Your task to perform on an android device: empty trash in google photos Image 0: 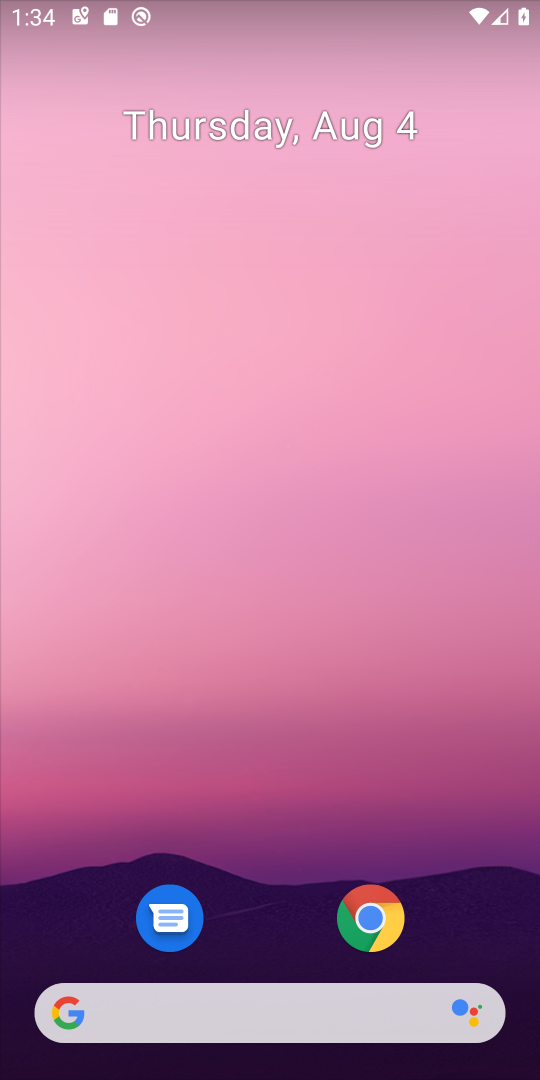
Step 0: drag from (270, 896) to (300, 383)
Your task to perform on an android device: empty trash in google photos Image 1: 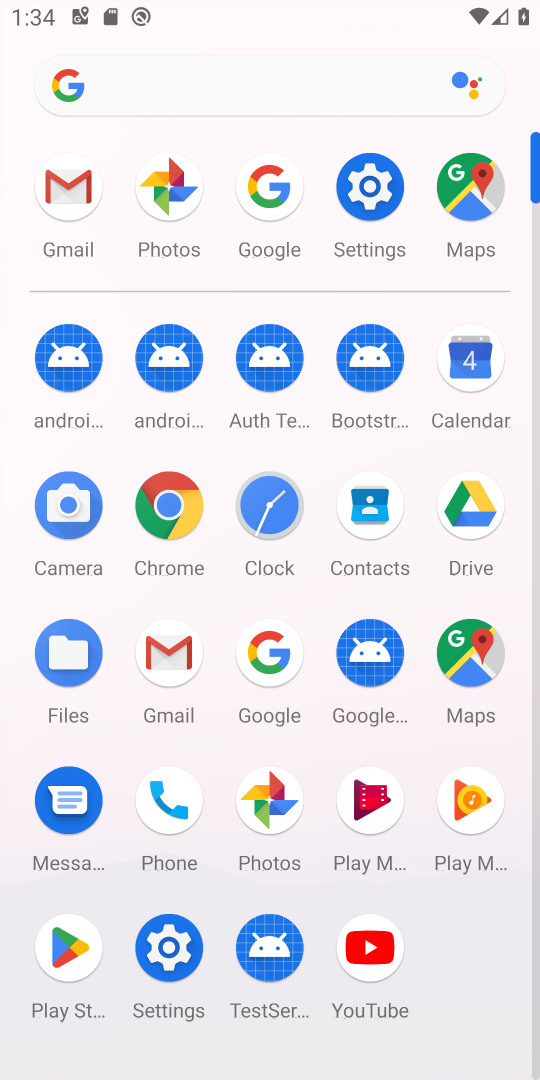
Step 1: click (155, 171)
Your task to perform on an android device: empty trash in google photos Image 2: 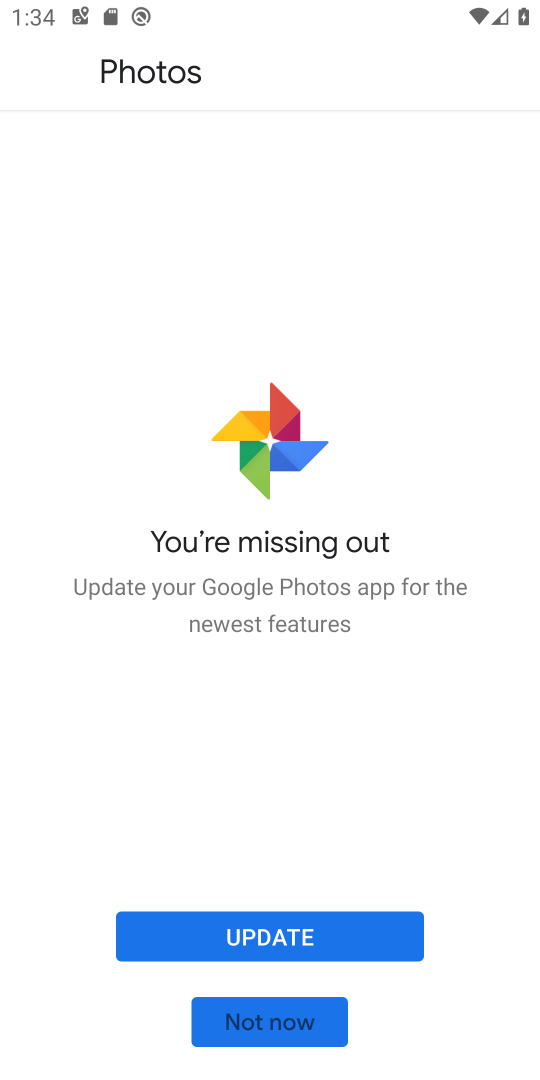
Step 2: click (215, 1014)
Your task to perform on an android device: empty trash in google photos Image 3: 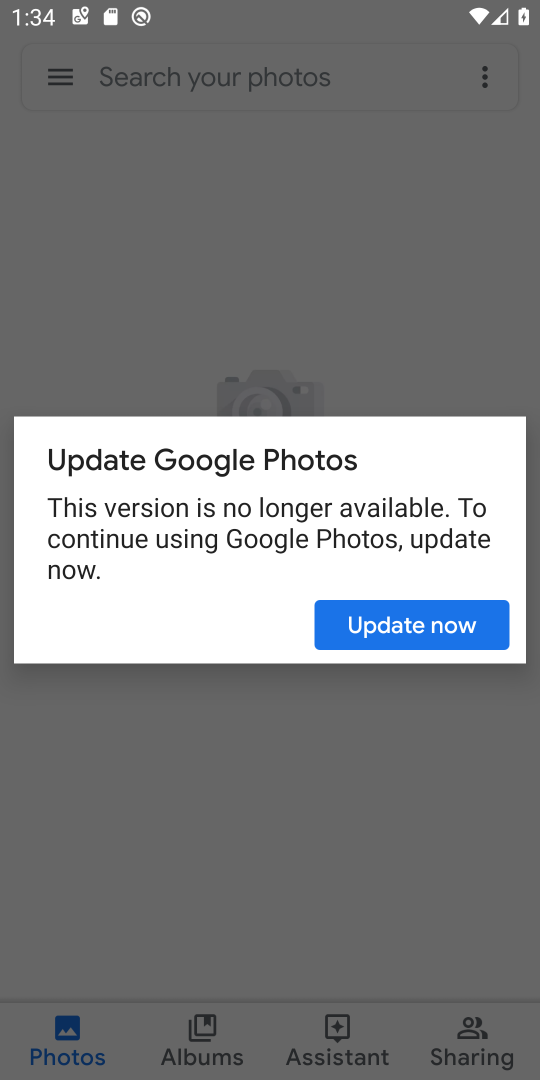
Step 3: click (420, 631)
Your task to perform on an android device: empty trash in google photos Image 4: 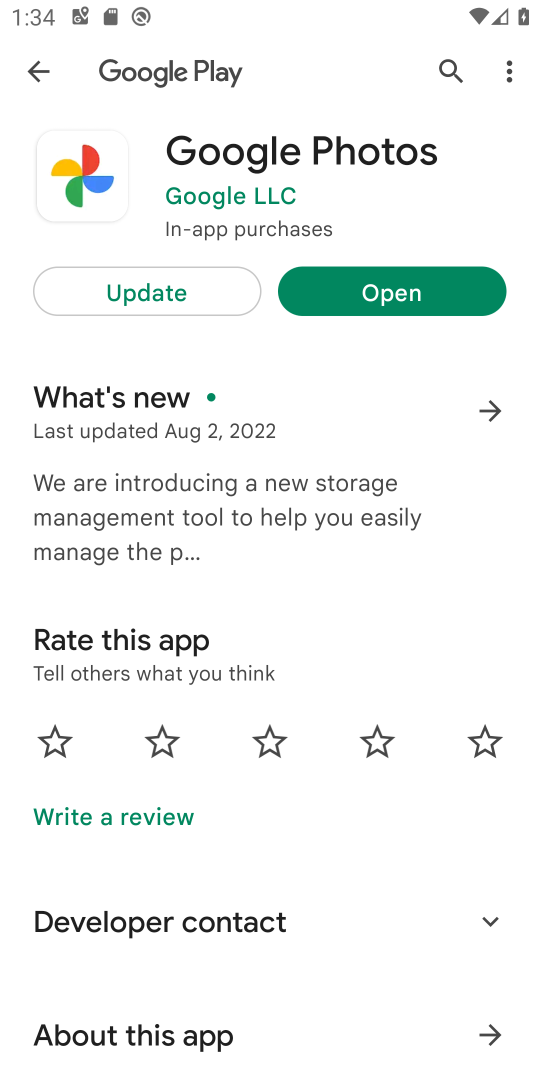
Step 4: click (396, 303)
Your task to perform on an android device: empty trash in google photos Image 5: 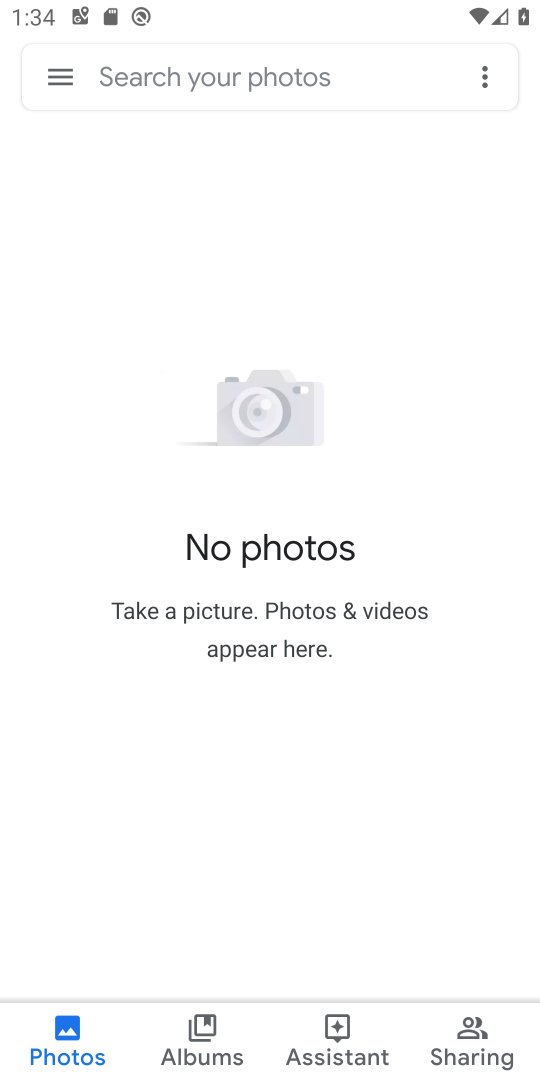
Step 5: click (55, 75)
Your task to perform on an android device: empty trash in google photos Image 6: 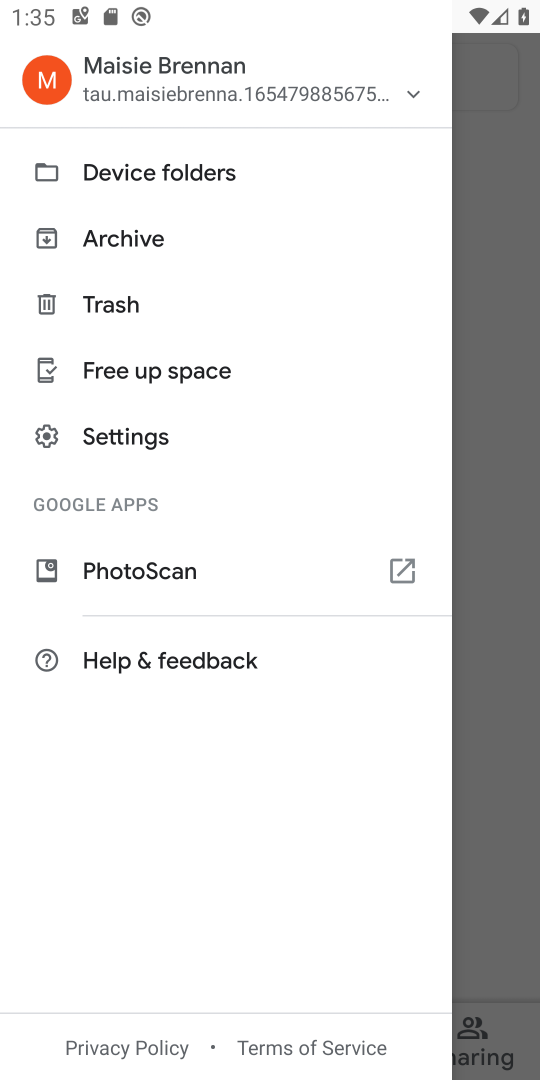
Step 6: click (152, 319)
Your task to perform on an android device: empty trash in google photos Image 7: 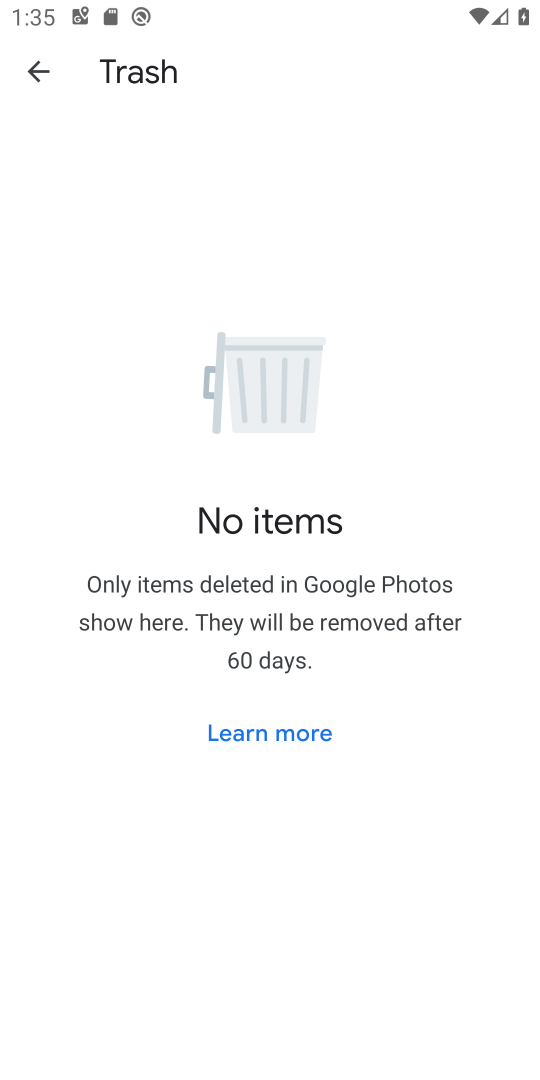
Step 7: task complete